Your task to perform on an android device: Open calendar and show me the third week of next month Image 0: 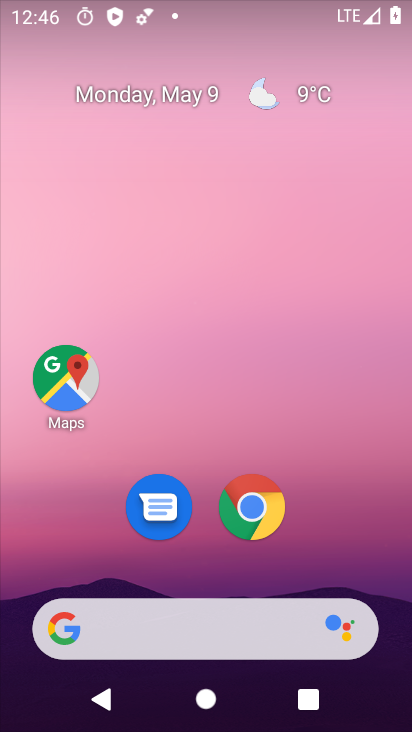
Step 0: drag from (226, 729) to (219, 205)
Your task to perform on an android device: Open calendar and show me the third week of next month Image 1: 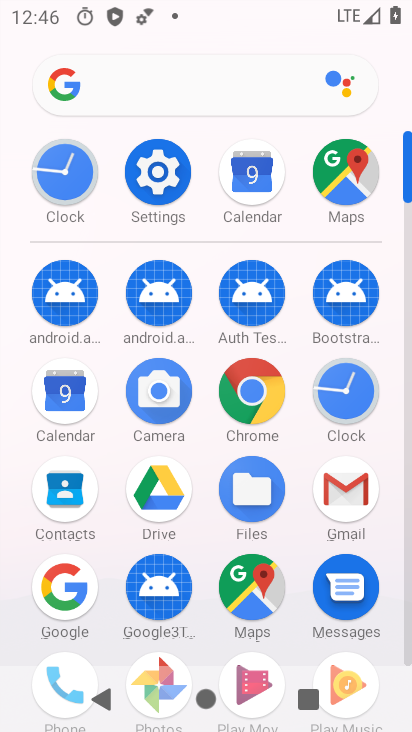
Step 1: click (69, 398)
Your task to perform on an android device: Open calendar and show me the third week of next month Image 2: 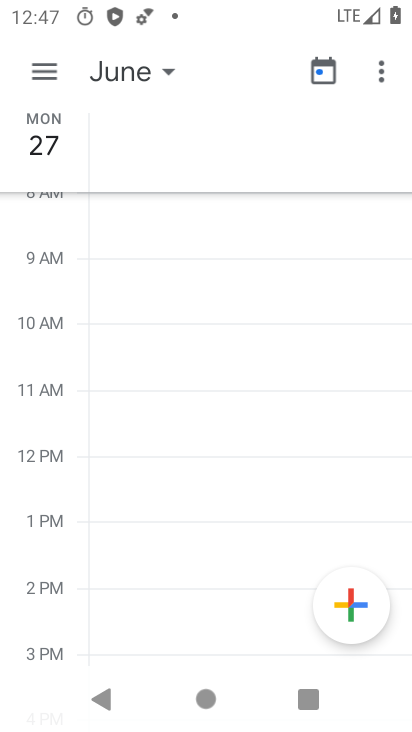
Step 2: click (127, 71)
Your task to perform on an android device: Open calendar and show me the third week of next month Image 3: 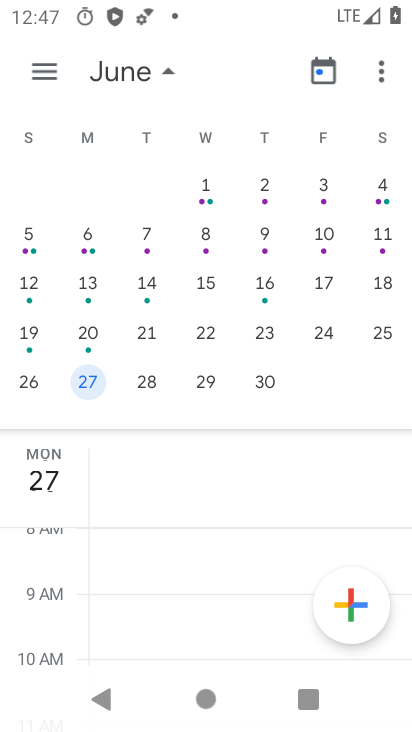
Step 3: click (87, 332)
Your task to perform on an android device: Open calendar and show me the third week of next month Image 4: 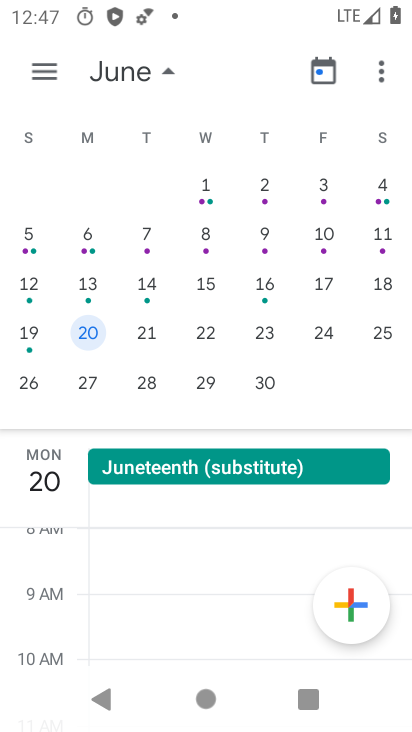
Step 4: task complete